Your task to perform on an android device: Search for sushi restaurants on Maps Image 0: 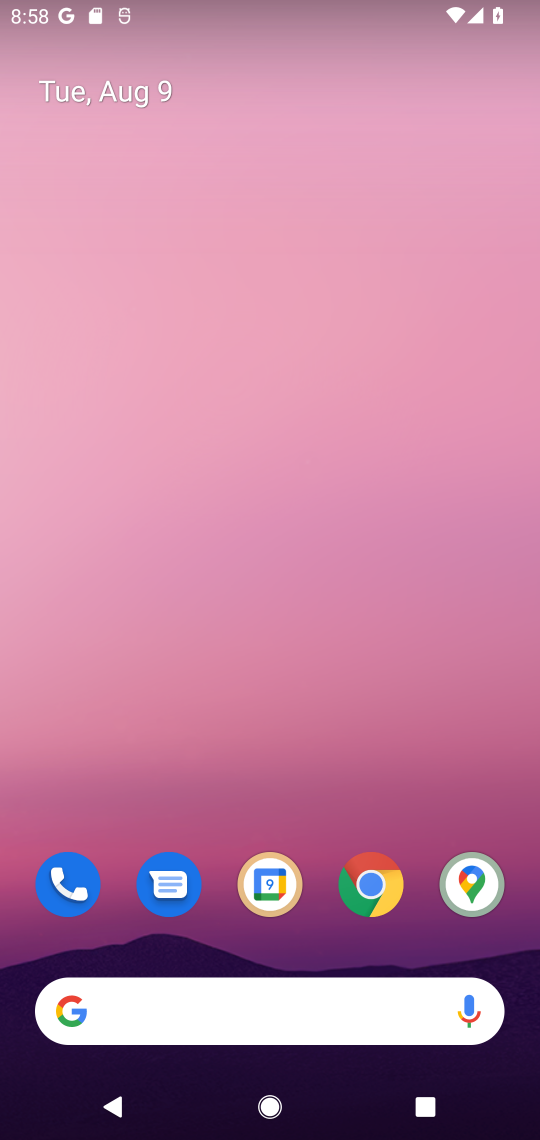
Step 0: drag from (181, 876) to (224, 243)
Your task to perform on an android device: Search for sushi restaurants on Maps Image 1: 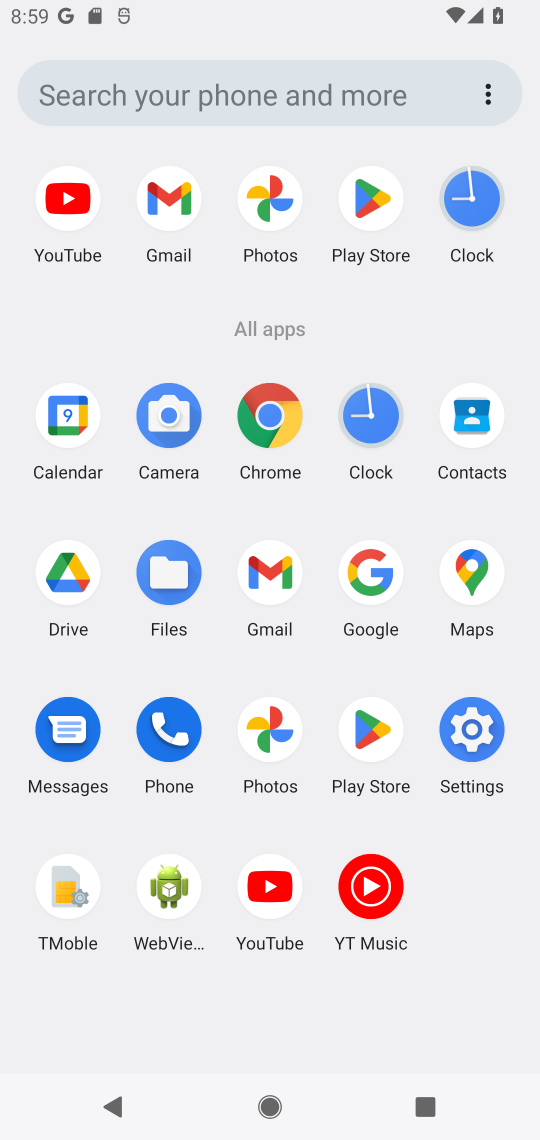
Step 1: click (468, 553)
Your task to perform on an android device: Search for sushi restaurants on Maps Image 2: 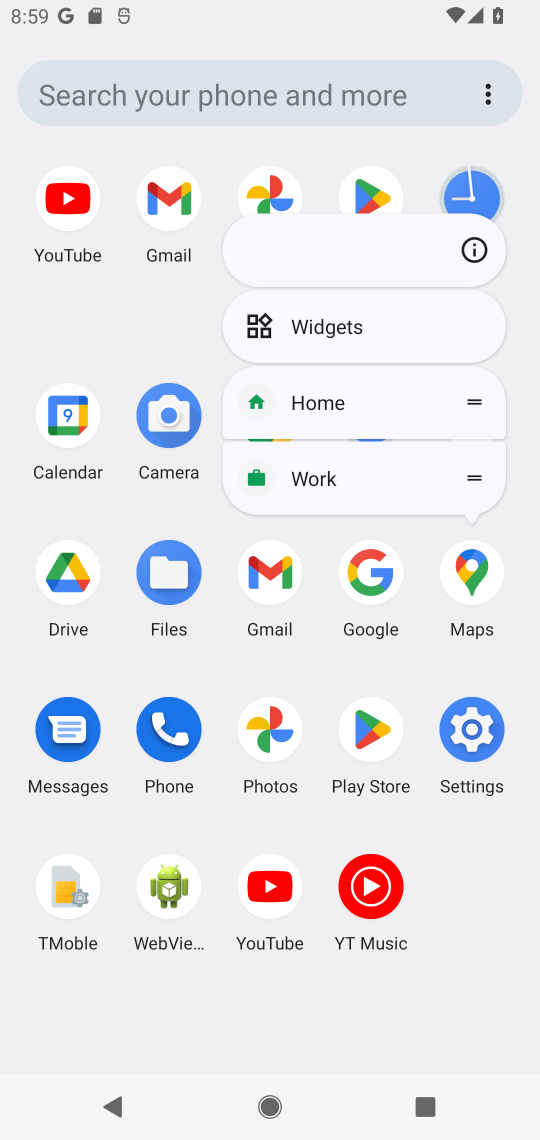
Step 2: click (468, 553)
Your task to perform on an android device: Search for sushi restaurants on Maps Image 3: 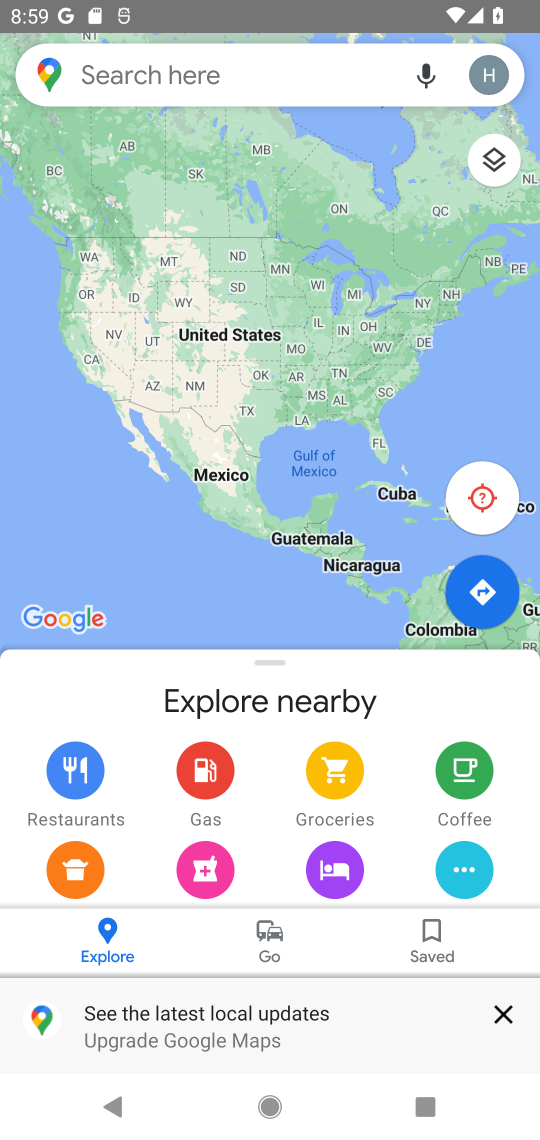
Step 3: click (212, 65)
Your task to perform on an android device: Search for sushi restaurants on Maps Image 4: 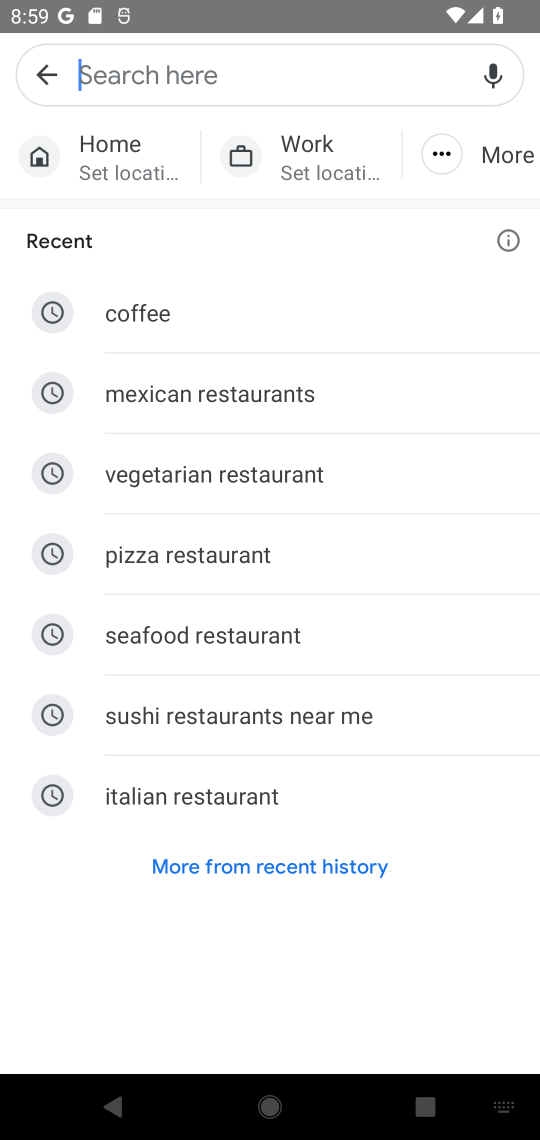
Step 4: click (188, 711)
Your task to perform on an android device: Search for sushi restaurants on Maps Image 5: 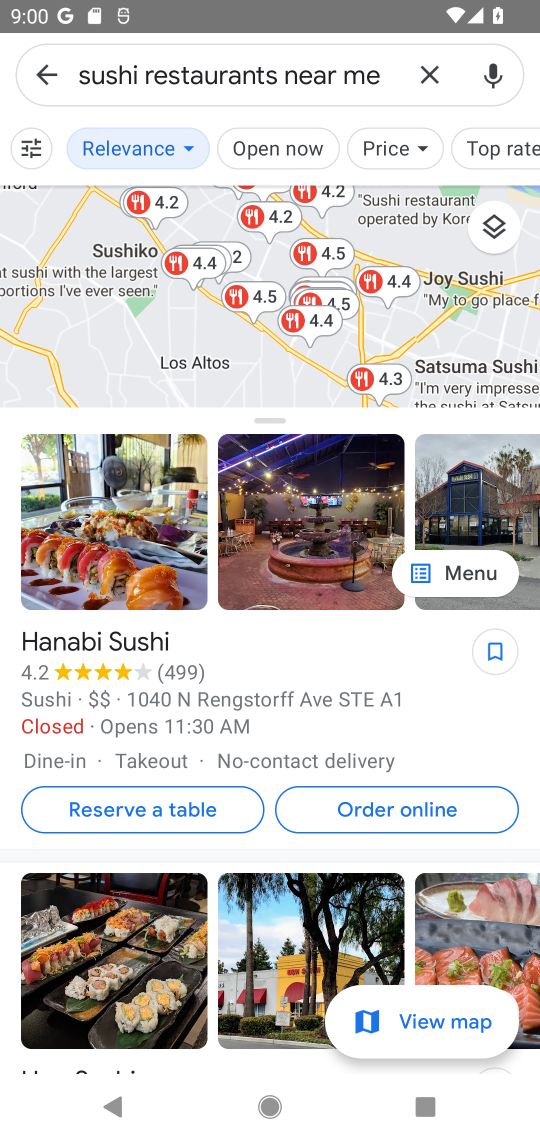
Step 5: task complete